Your task to perform on an android device: find photos in the google photos app Image 0: 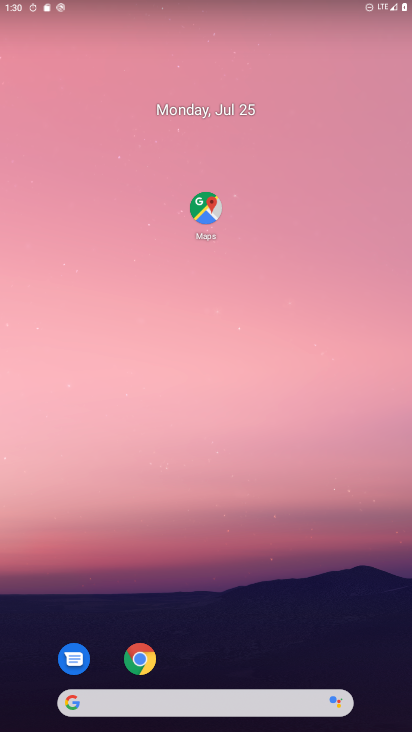
Step 0: drag from (54, 599) to (148, 152)
Your task to perform on an android device: find photos in the google photos app Image 1: 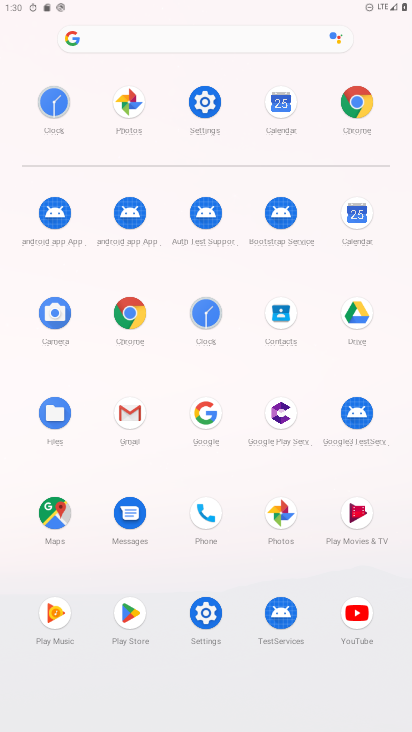
Step 1: click (288, 517)
Your task to perform on an android device: find photos in the google photos app Image 2: 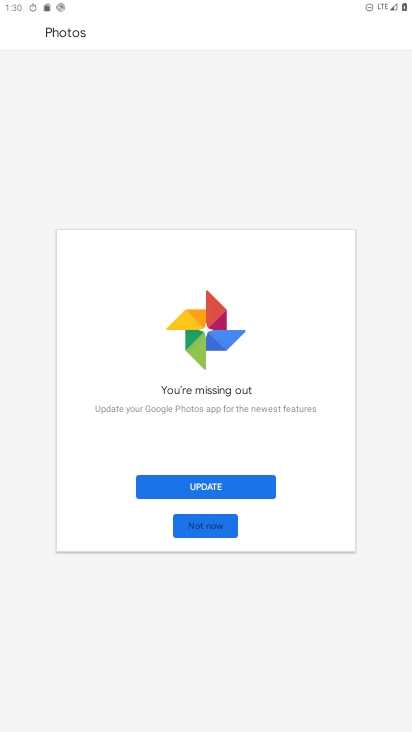
Step 2: click (205, 515)
Your task to perform on an android device: find photos in the google photos app Image 3: 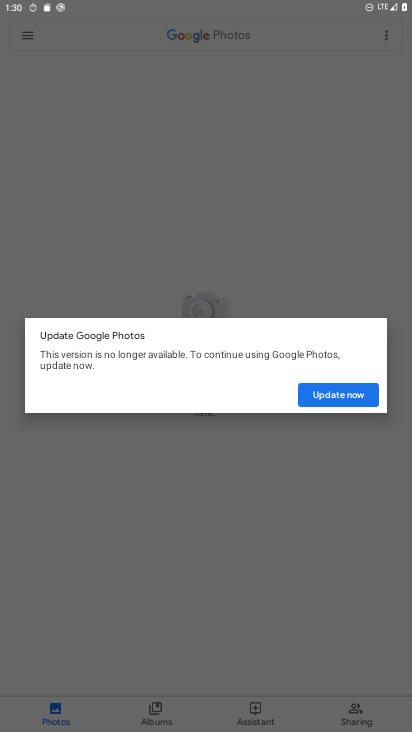
Step 3: click (322, 392)
Your task to perform on an android device: find photos in the google photos app Image 4: 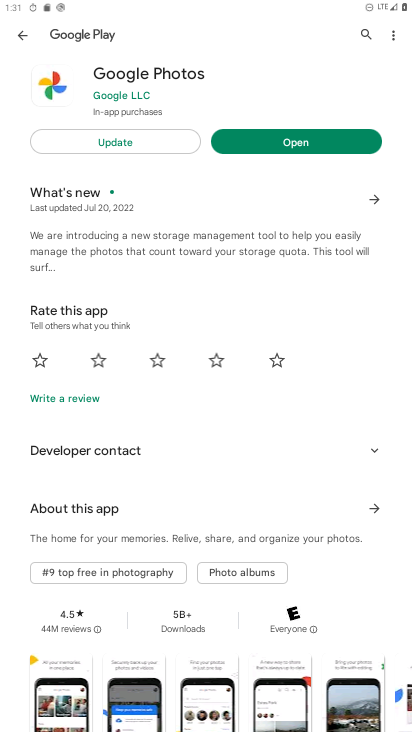
Step 4: click (282, 145)
Your task to perform on an android device: find photos in the google photos app Image 5: 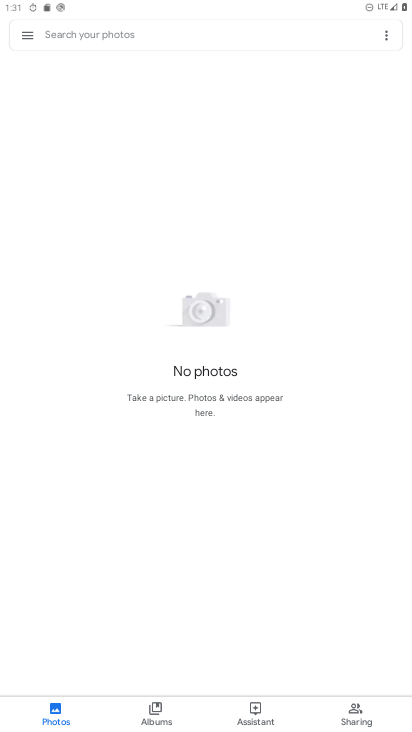
Step 5: task complete